Your task to perform on an android device: Play the last video I watched on Youtube Image 0: 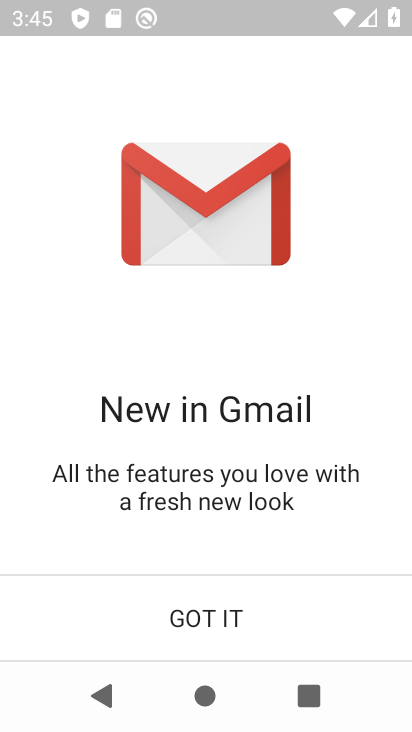
Step 0: press home button
Your task to perform on an android device: Play the last video I watched on Youtube Image 1: 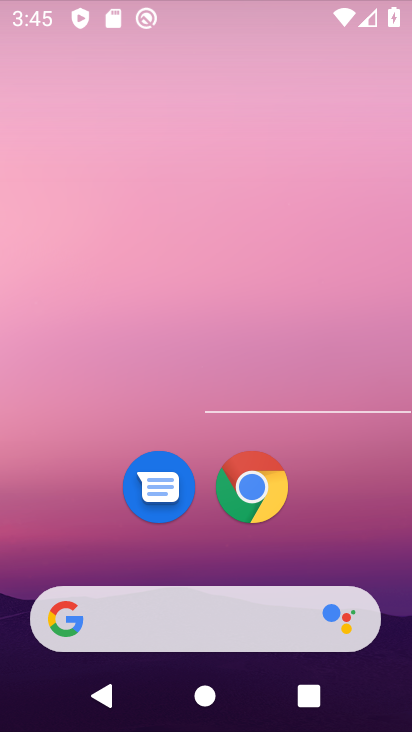
Step 1: drag from (318, 557) to (333, 130)
Your task to perform on an android device: Play the last video I watched on Youtube Image 2: 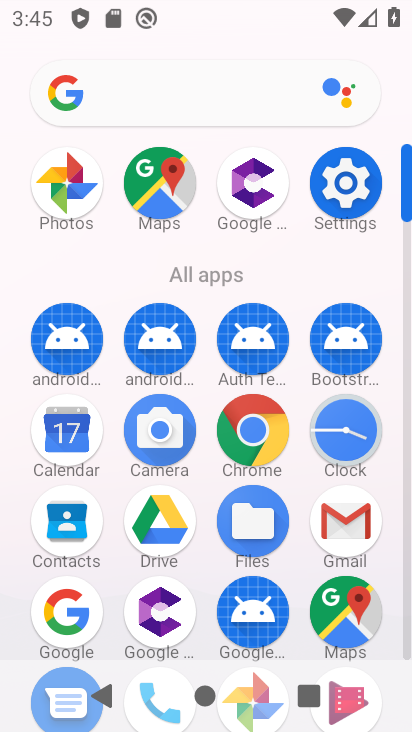
Step 2: drag from (297, 584) to (308, 229)
Your task to perform on an android device: Play the last video I watched on Youtube Image 3: 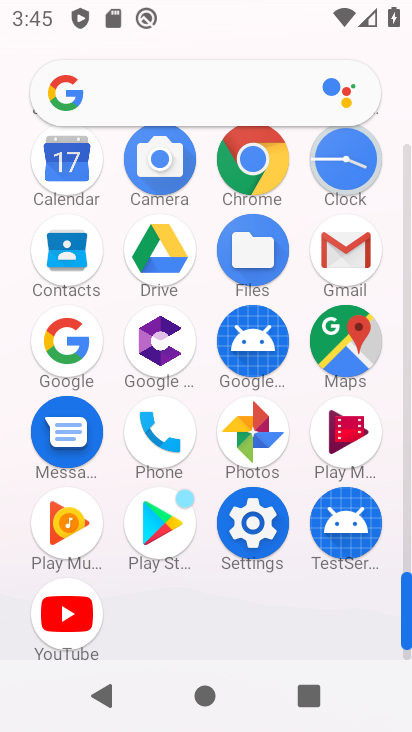
Step 3: click (68, 627)
Your task to perform on an android device: Play the last video I watched on Youtube Image 4: 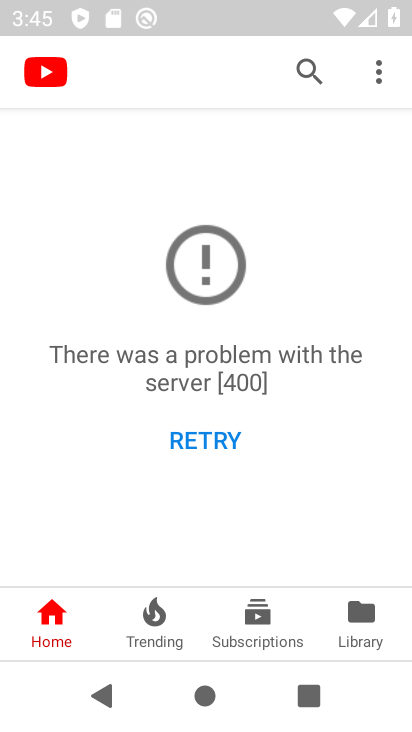
Step 4: click (366, 633)
Your task to perform on an android device: Play the last video I watched on Youtube Image 5: 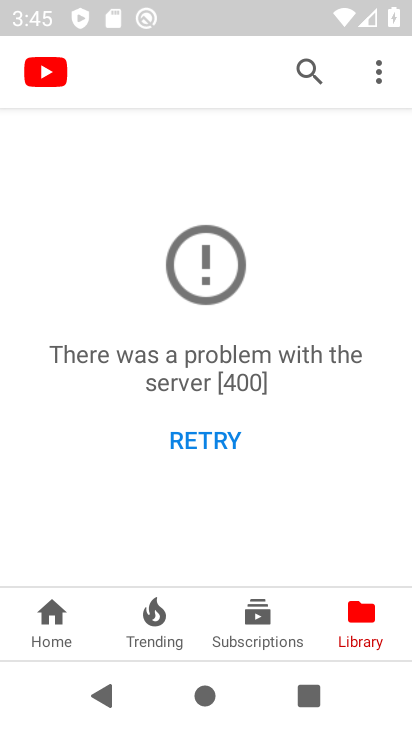
Step 5: task complete